Your task to perform on an android device: See recent photos Image 0: 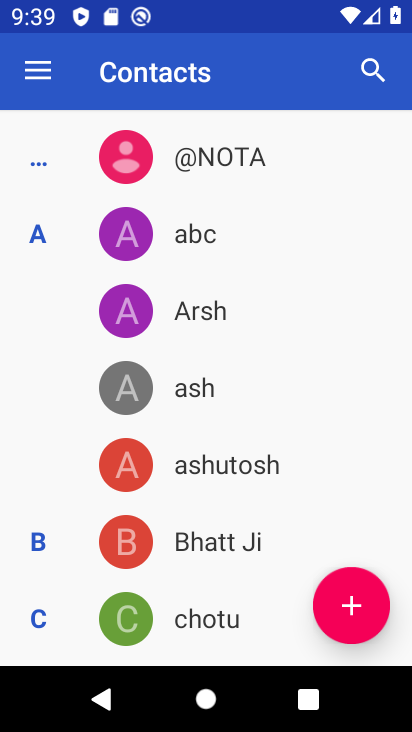
Step 0: press home button
Your task to perform on an android device: See recent photos Image 1: 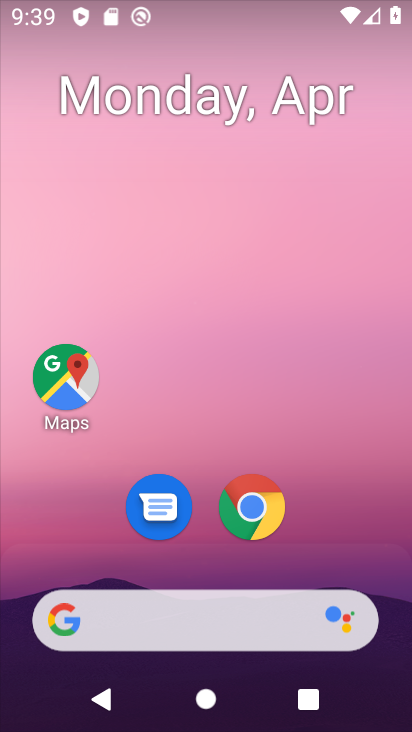
Step 1: drag from (349, 519) to (310, 74)
Your task to perform on an android device: See recent photos Image 2: 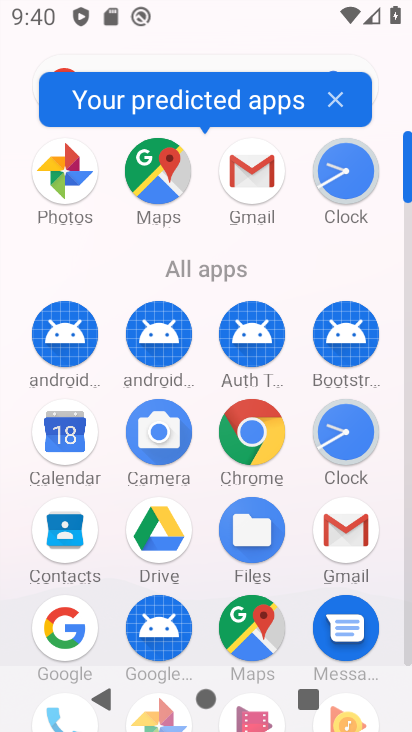
Step 2: click (79, 181)
Your task to perform on an android device: See recent photos Image 3: 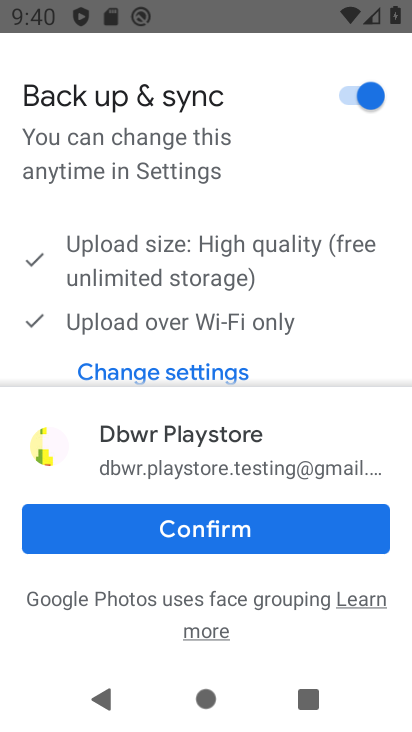
Step 3: click (205, 530)
Your task to perform on an android device: See recent photos Image 4: 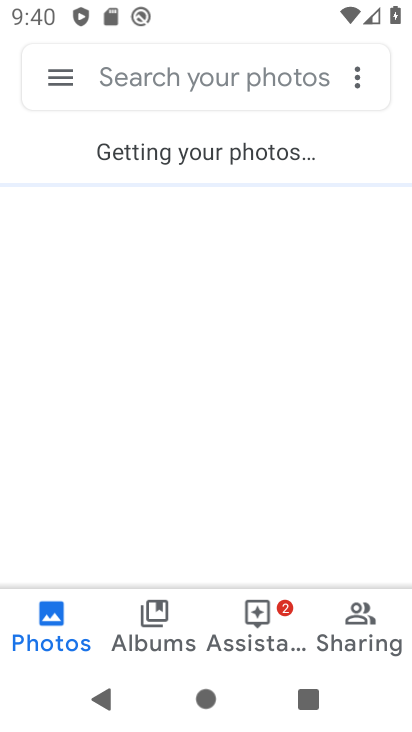
Step 4: click (200, 391)
Your task to perform on an android device: See recent photos Image 5: 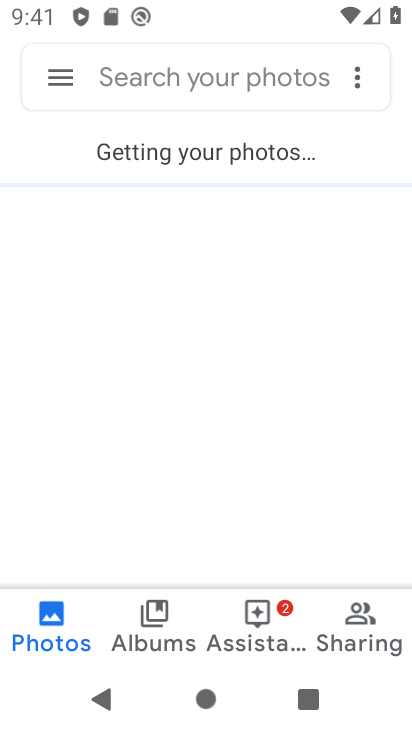
Step 5: drag from (192, 452) to (196, 319)
Your task to perform on an android device: See recent photos Image 6: 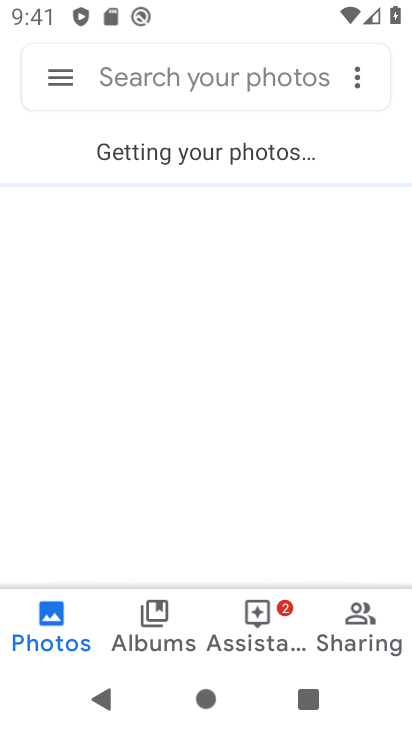
Step 6: drag from (190, 349) to (185, 389)
Your task to perform on an android device: See recent photos Image 7: 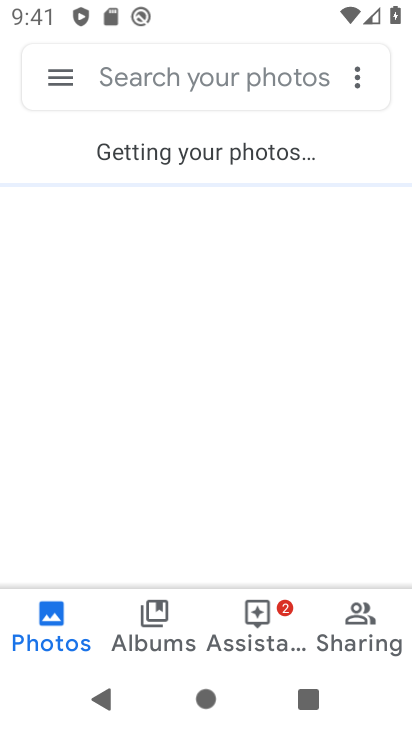
Step 7: click (75, 609)
Your task to perform on an android device: See recent photos Image 8: 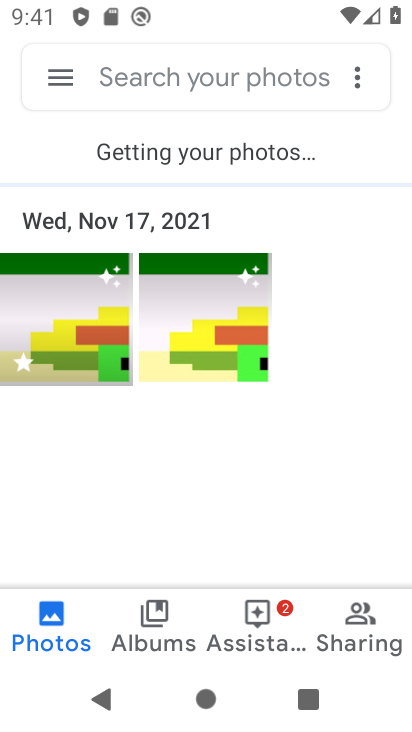
Step 8: click (90, 315)
Your task to perform on an android device: See recent photos Image 9: 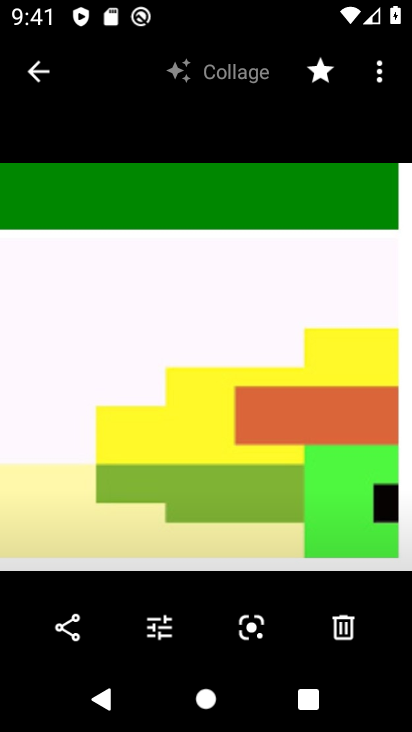
Step 9: task complete